Your task to perform on an android device: turn off smart reply in the gmail app Image 0: 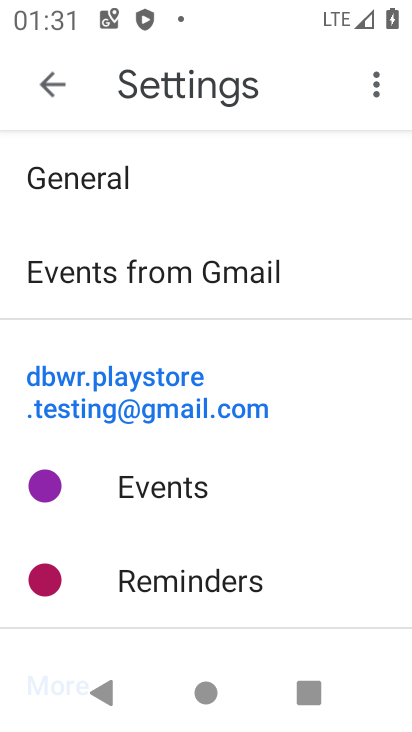
Step 0: press home button
Your task to perform on an android device: turn off smart reply in the gmail app Image 1: 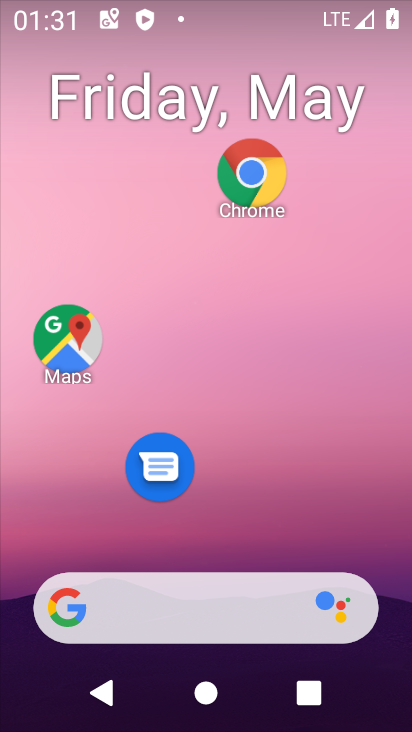
Step 1: drag from (272, 642) to (341, 130)
Your task to perform on an android device: turn off smart reply in the gmail app Image 2: 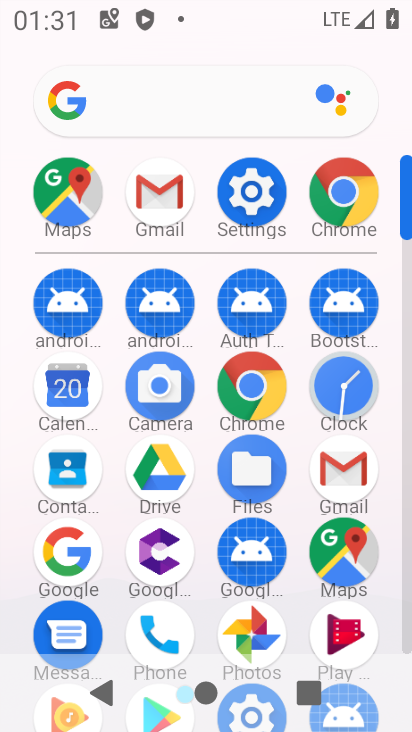
Step 2: click (175, 194)
Your task to perform on an android device: turn off smart reply in the gmail app Image 3: 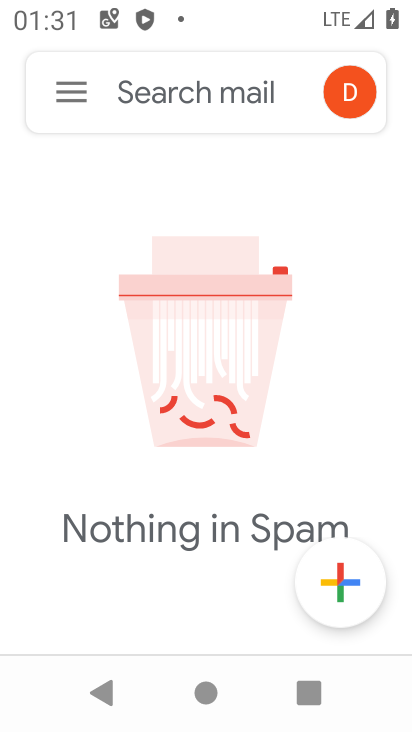
Step 3: click (58, 77)
Your task to perform on an android device: turn off smart reply in the gmail app Image 4: 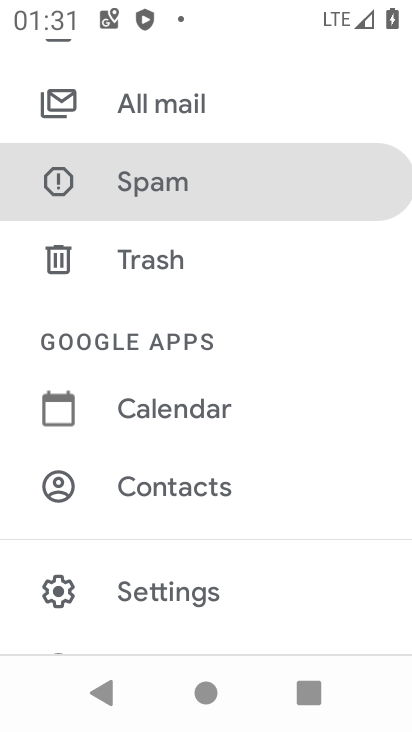
Step 4: click (165, 591)
Your task to perform on an android device: turn off smart reply in the gmail app Image 5: 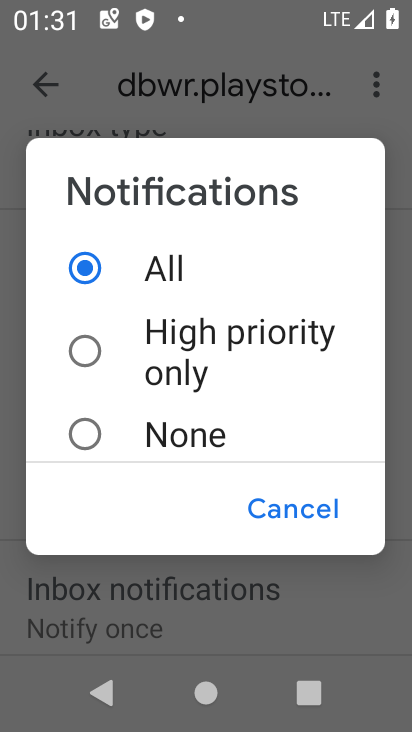
Step 5: click (314, 522)
Your task to perform on an android device: turn off smart reply in the gmail app Image 6: 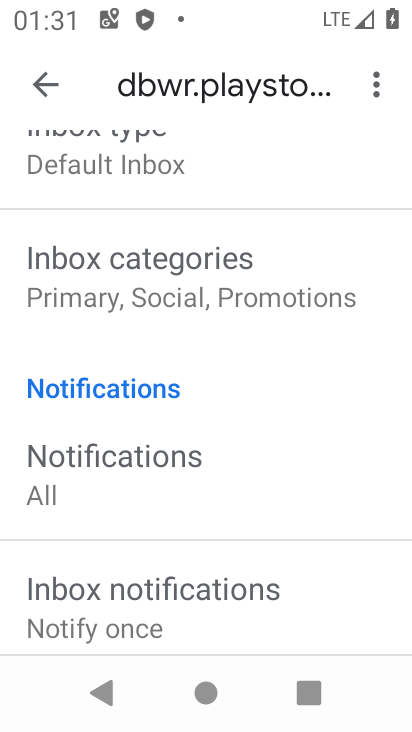
Step 6: drag from (289, 533) to (297, 297)
Your task to perform on an android device: turn off smart reply in the gmail app Image 7: 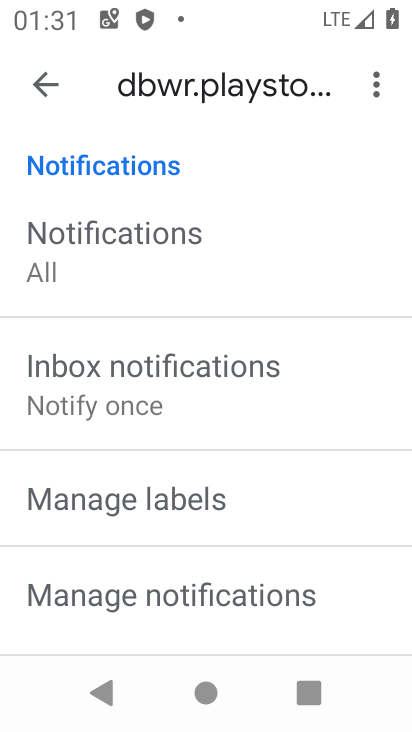
Step 7: drag from (246, 583) to (174, 237)
Your task to perform on an android device: turn off smart reply in the gmail app Image 8: 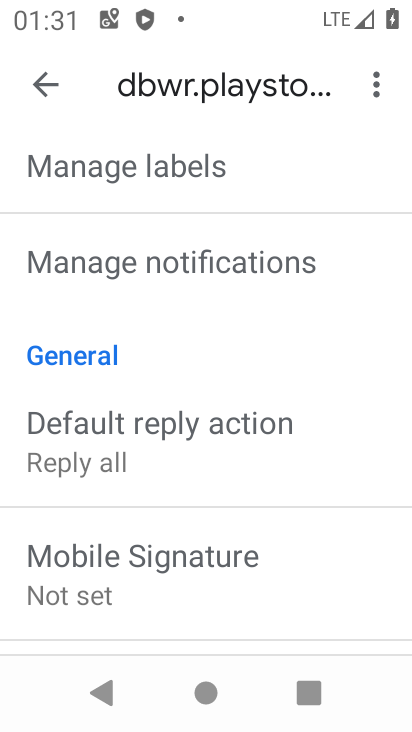
Step 8: drag from (204, 523) to (210, 210)
Your task to perform on an android device: turn off smart reply in the gmail app Image 9: 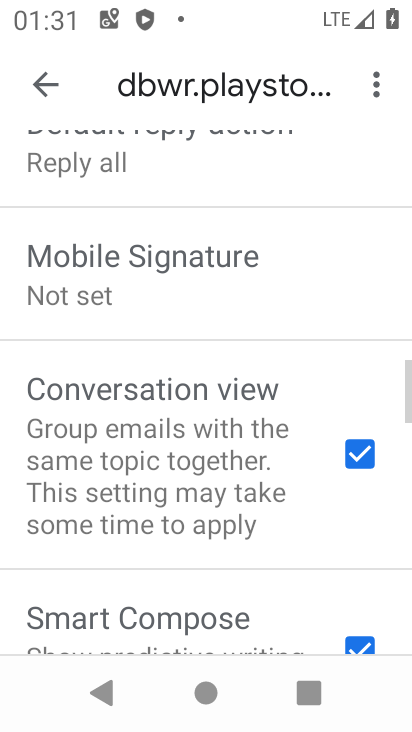
Step 9: drag from (247, 557) to (213, 284)
Your task to perform on an android device: turn off smart reply in the gmail app Image 10: 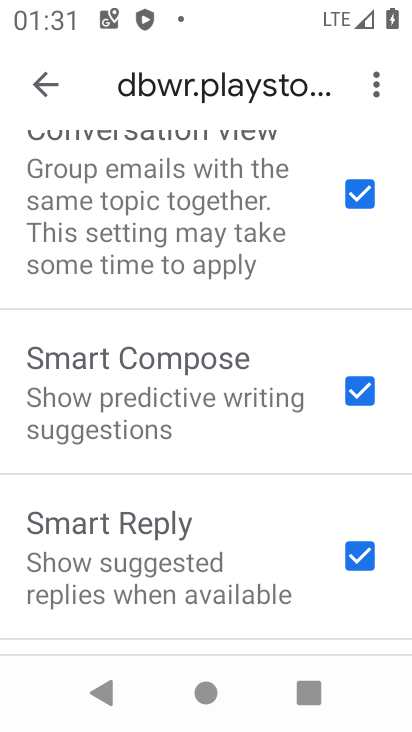
Step 10: click (357, 563)
Your task to perform on an android device: turn off smart reply in the gmail app Image 11: 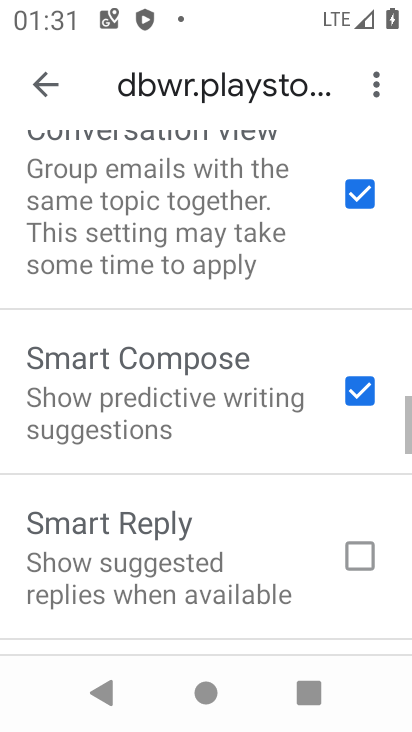
Step 11: task complete